Your task to perform on an android device: Open Yahoo.com Image 0: 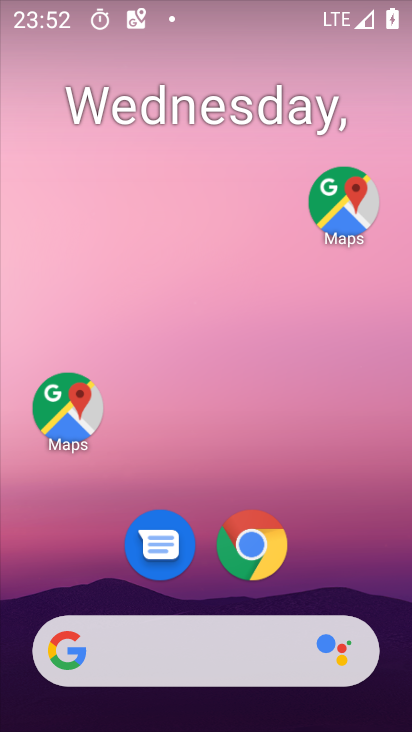
Step 0: click (240, 535)
Your task to perform on an android device: Open Yahoo.com Image 1: 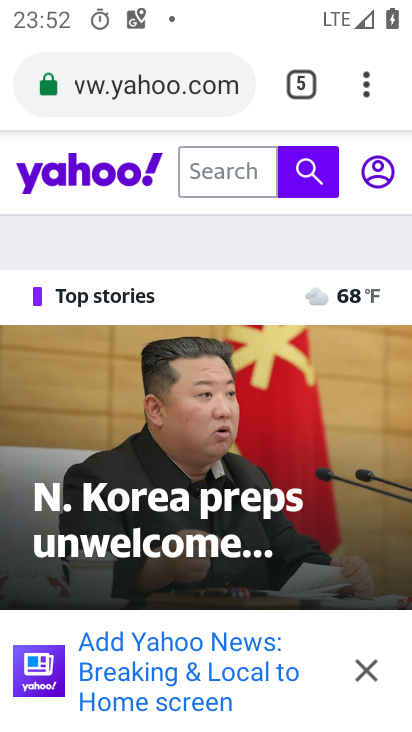
Step 1: task complete